Your task to perform on an android device: allow cookies in the chrome app Image 0: 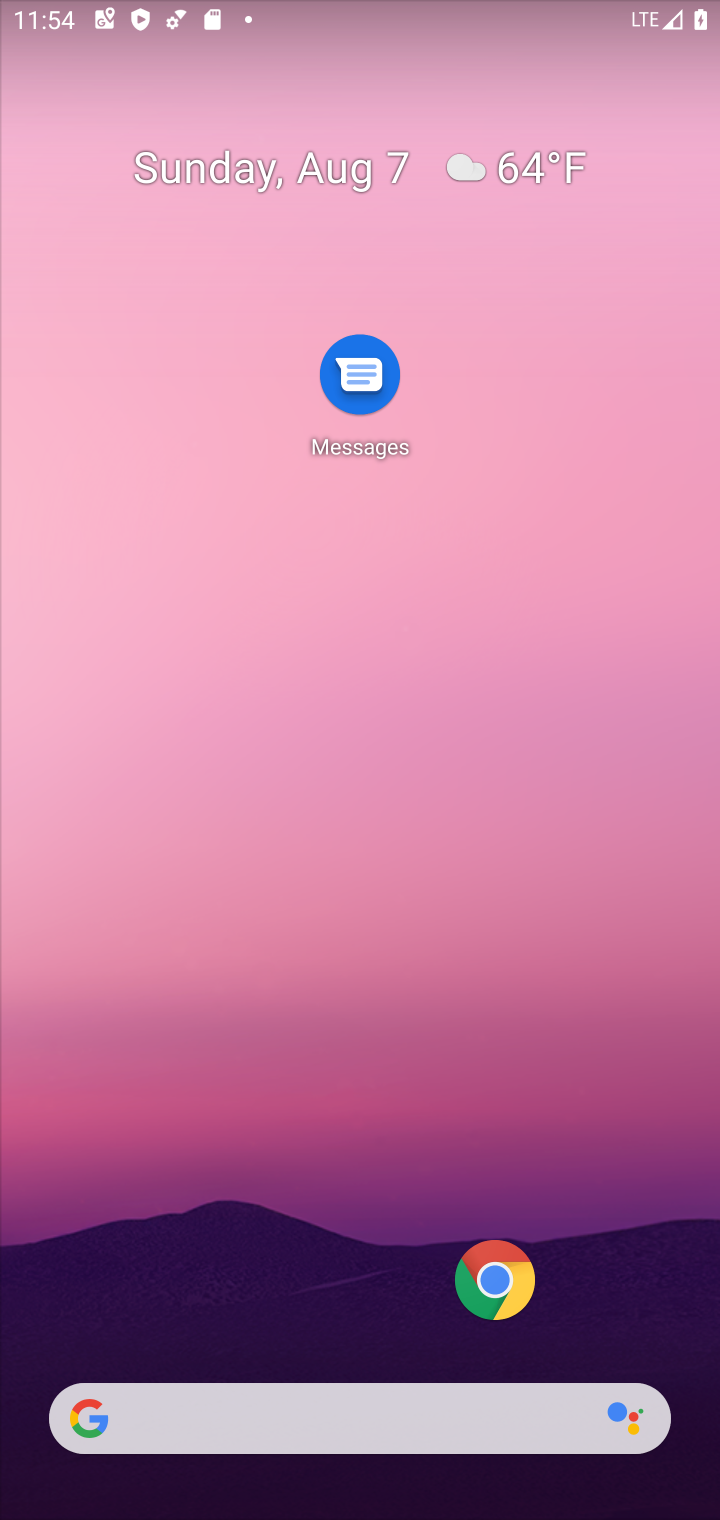
Step 0: click (519, 1269)
Your task to perform on an android device: allow cookies in the chrome app Image 1: 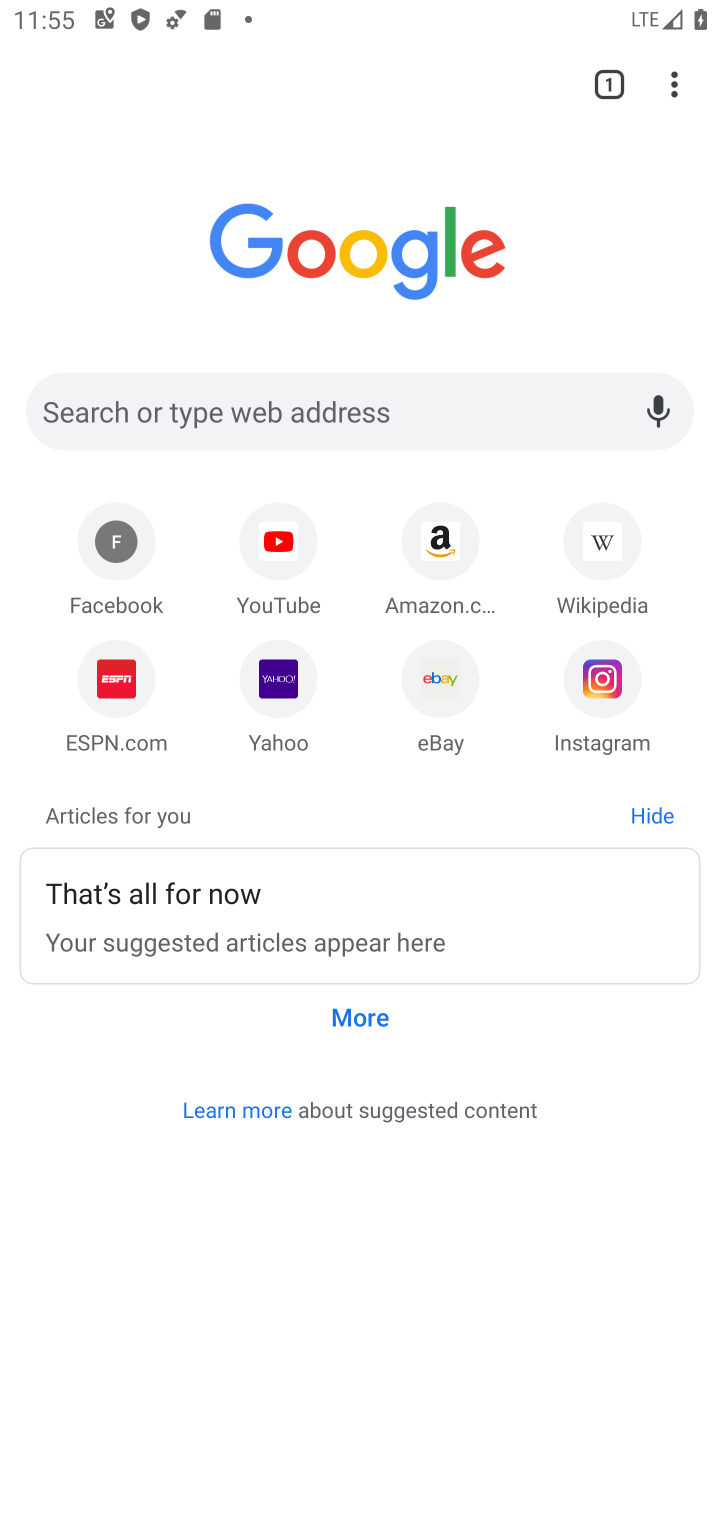
Step 1: drag from (670, 66) to (412, 703)
Your task to perform on an android device: allow cookies in the chrome app Image 2: 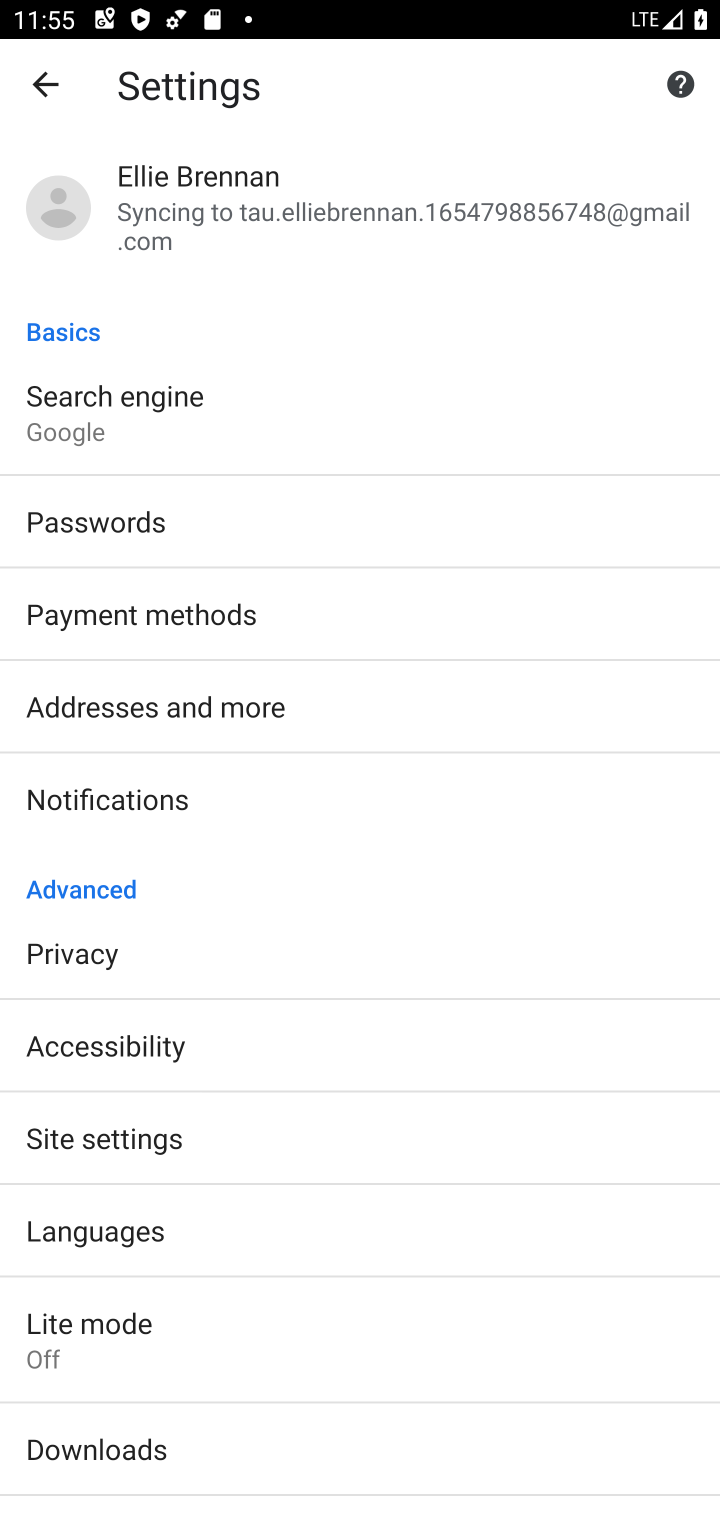
Step 2: click (148, 1143)
Your task to perform on an android device: allow cookies in the chrome app Image 3: 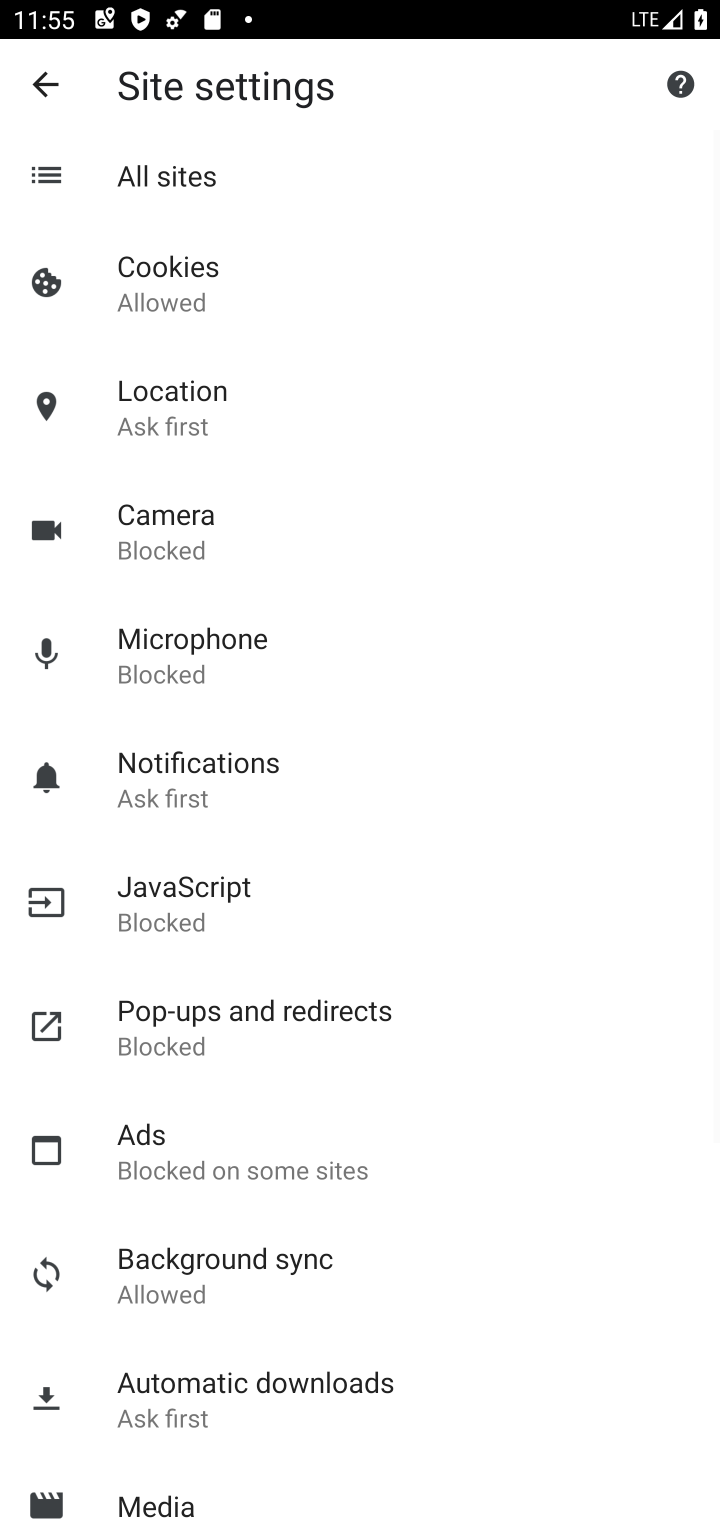
Step 3: click (187, 297)
Your task to perform on an android device: allow cookies in the chrome app Image 4: 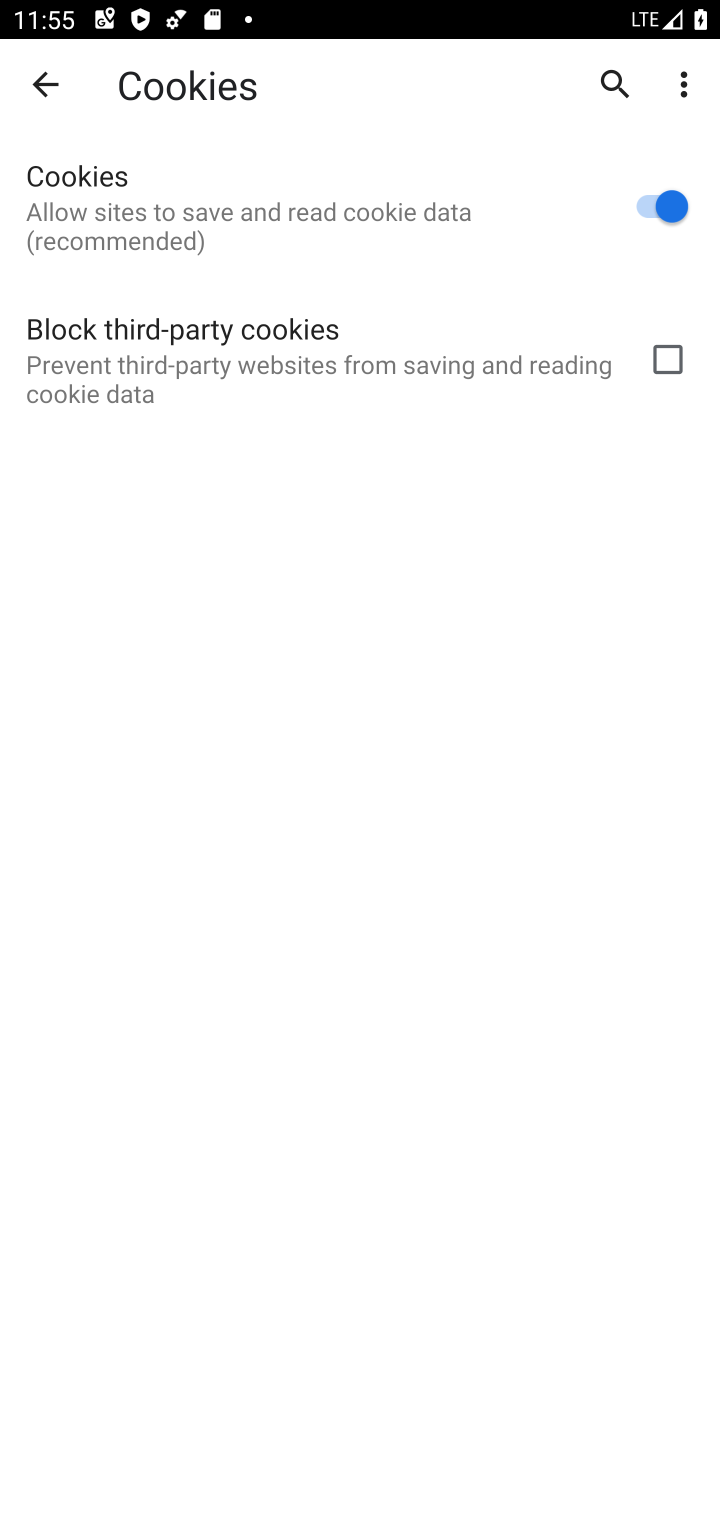
Step 4: task complete